Your task to perform on an android device: turn off sleep mode Image 0: 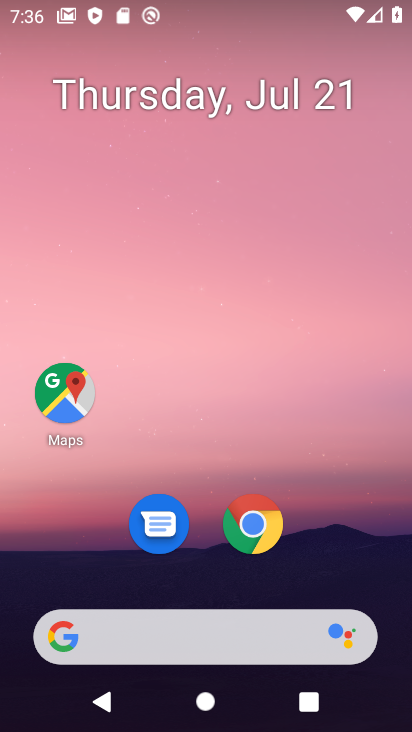
Step 0: press home button
Your task to perform on an android device: turn off sleep mode Image 1: 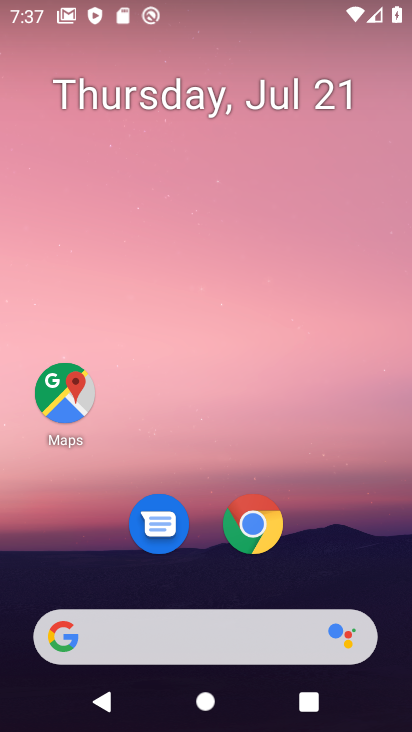
Step 1: drag from (137, 636) to (257, 126)
Your task to perform on an android device: turn off sleep mode Image 2: 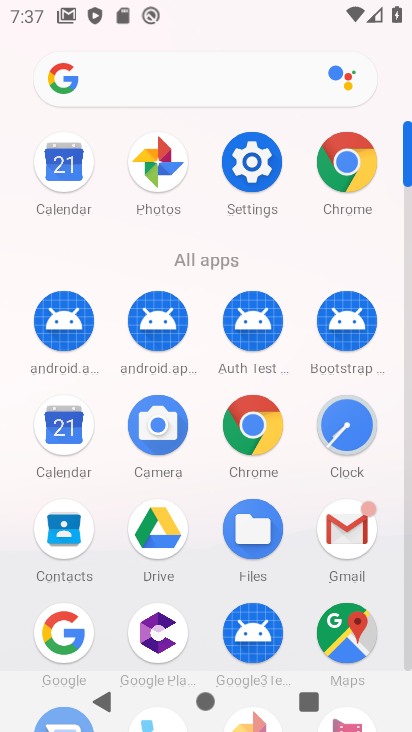
Step 2: click (249, 167)
Your task to perform on an android device: turn off sleep mode Image 3: 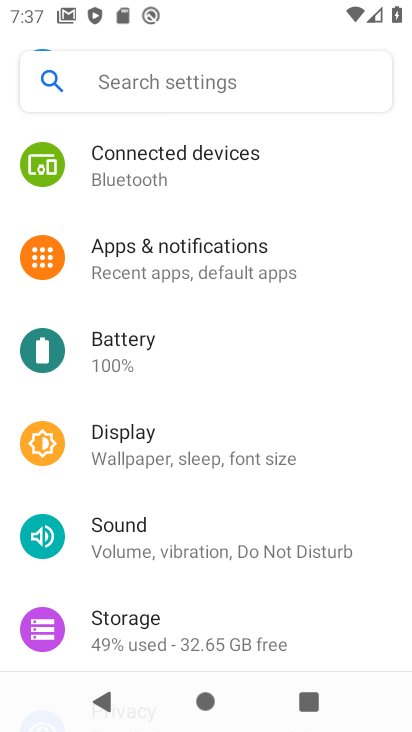
Step 3: click (157, 455)
Your task to perform on an android device: turn off sleep mode Image 4: 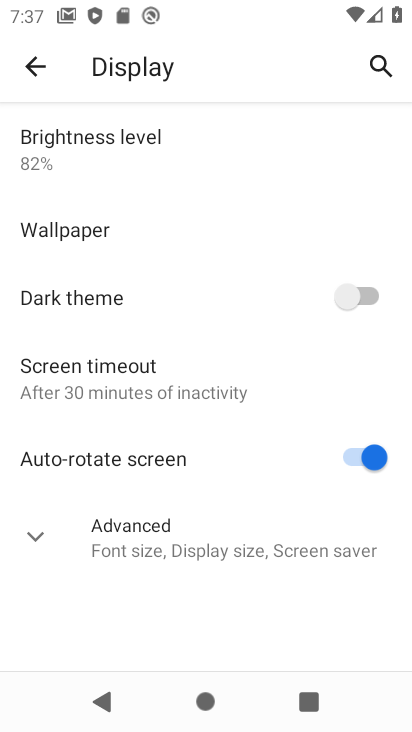
Step 4: click (101, 533)
Your task to perform on an android device: turn off sleep mode Image 5: 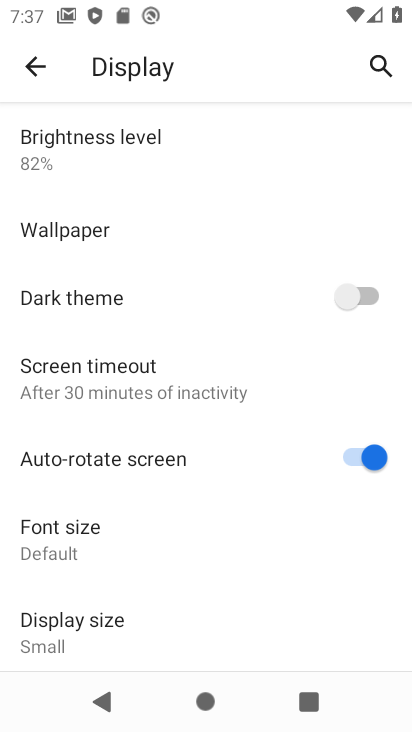
Step 5: task complete